Your task to perform on an android device: snooze an email in the gmail app Image 0: 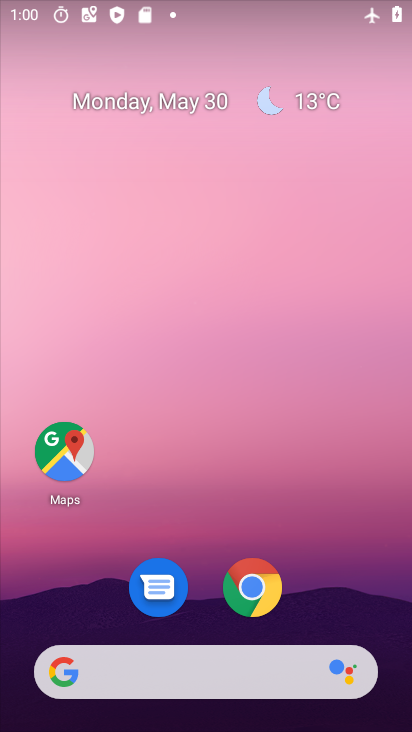
Step 0: drag from (356, 563) to (299, 107)
Your task to perform on an android device: snooze an email in the gmail app Image 1: 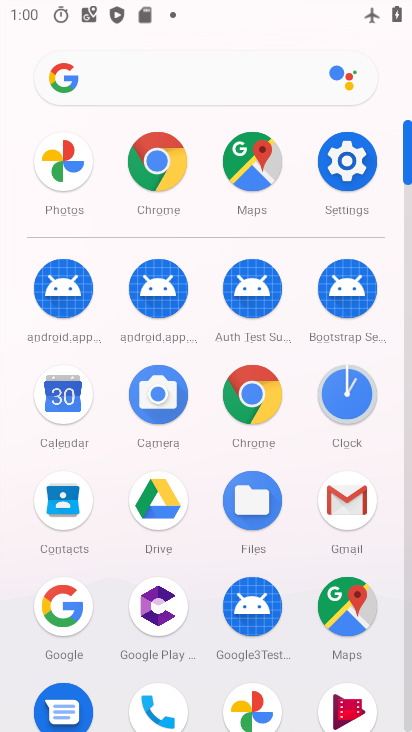
Step 1: click (343, 502)
Your task to perform on an android device: snooze an email in the gmail app Image 2: 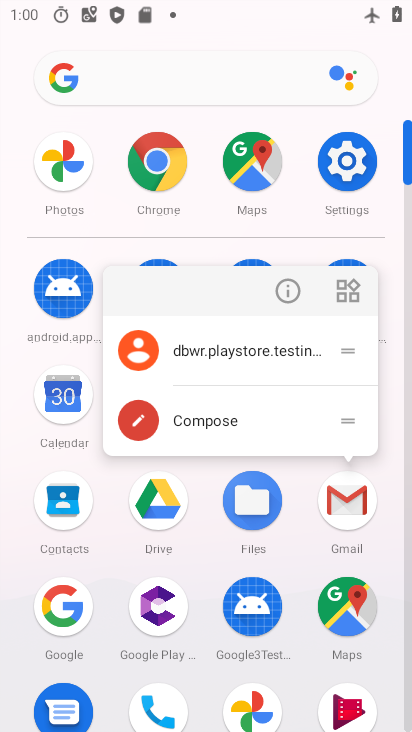
Step 2: click (343, 502)
Your task to perform on an android device: snooze an email in the gmail app Image 3: 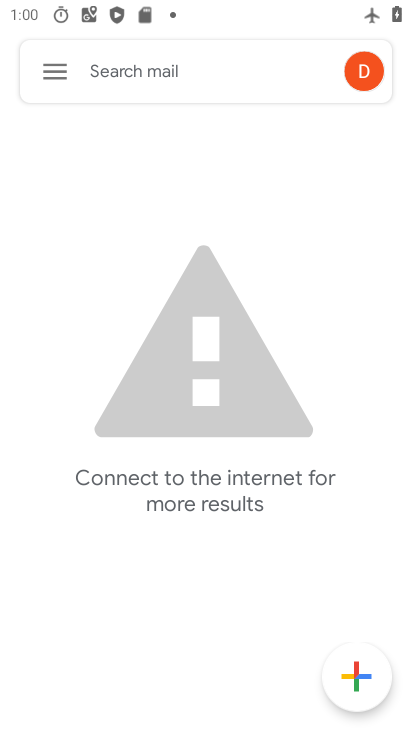
Step 3: click (66, 74)
Your task to perform on an android device: snooze an email in the gmail app Image 4: 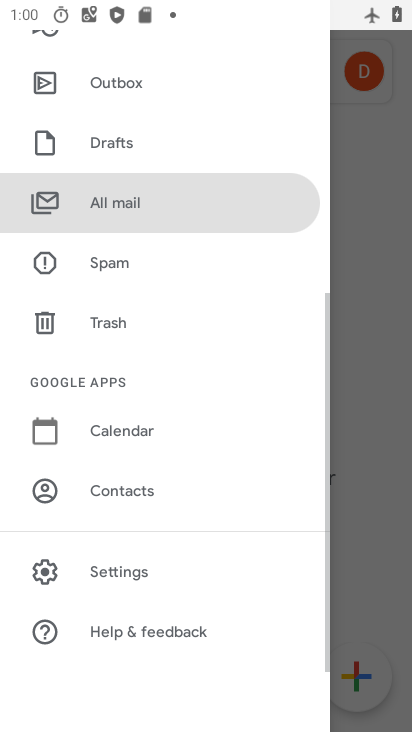
Step 4: drag from (148, 183) to (204, 477)
Your task to perform on an android device: snooze an email in the gmail app Image 5: 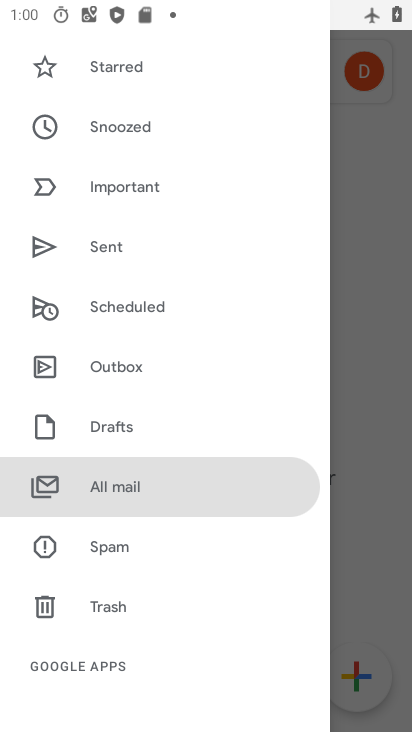
Step 5: click (118, 477)
Your task to perform on an android device: snooze an email in the gmail app Image 6: 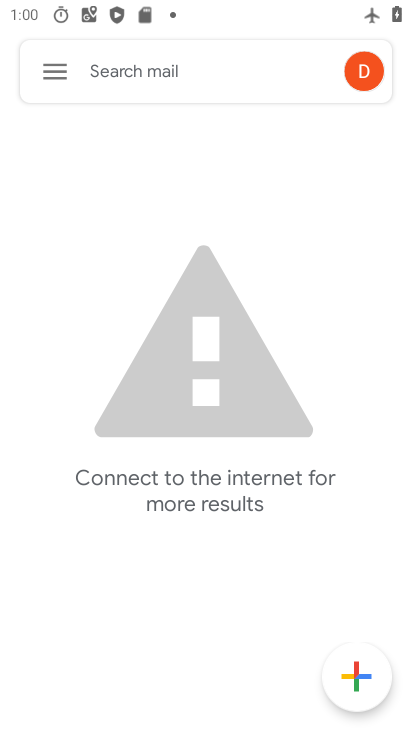
Step 6: task complete